Your task to perform on an android device: move a message to another label in the gmail app Image 0: 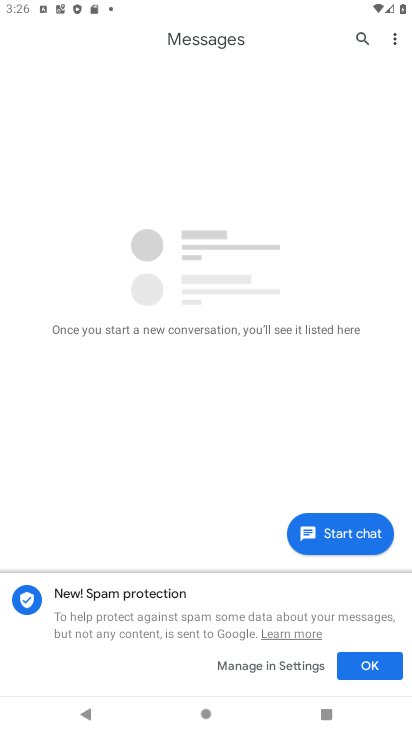
Step 0: press home button
Your task to perform on an android device: move a message to another label in the gmail app Image 1: 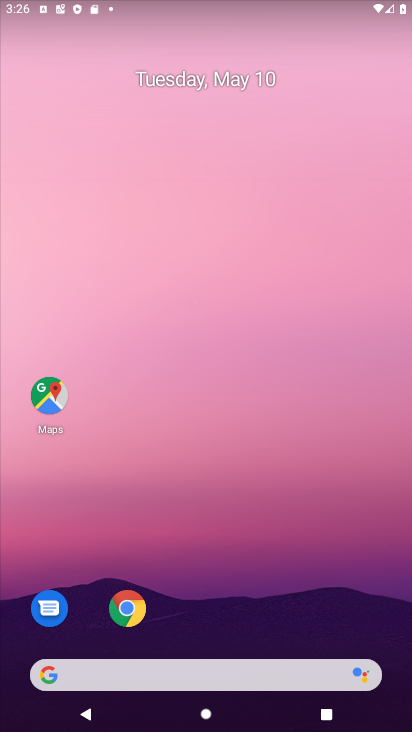
Step 1: drag from (394, 653) to (265, 112)
Your task to perform on an android device: move a message to another label in the gmail app Image 2: 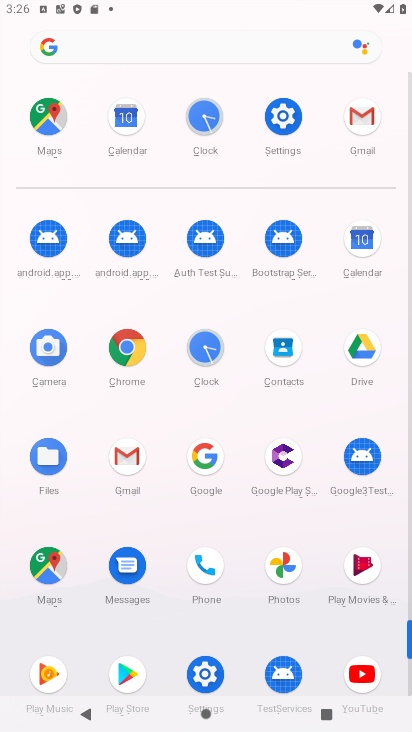
Step 2: click (125, 451)
Your task to perform on an android device: move a message to another label in the gmail app Image 3: 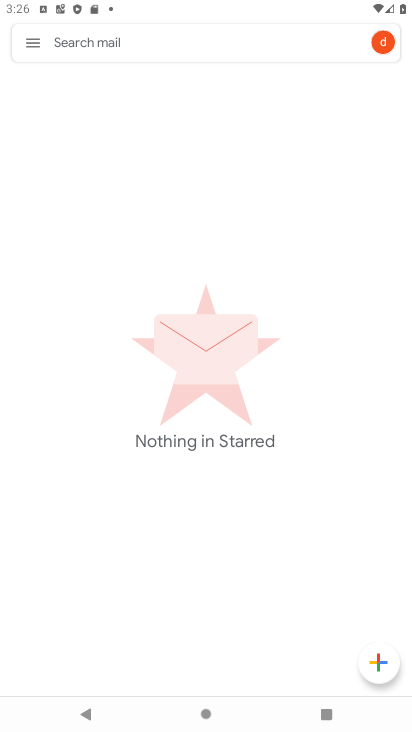
Step 3: click (27, 37)
Your task to perform on an android device: move a message to another label in the gmail app Image 4: 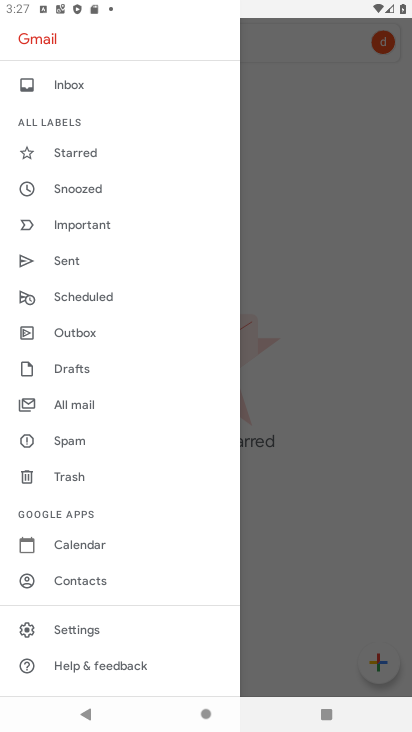
Step 4: click (68, 406)
Your task to perform on an android device: move a message to another label in the gmail app Image 5: 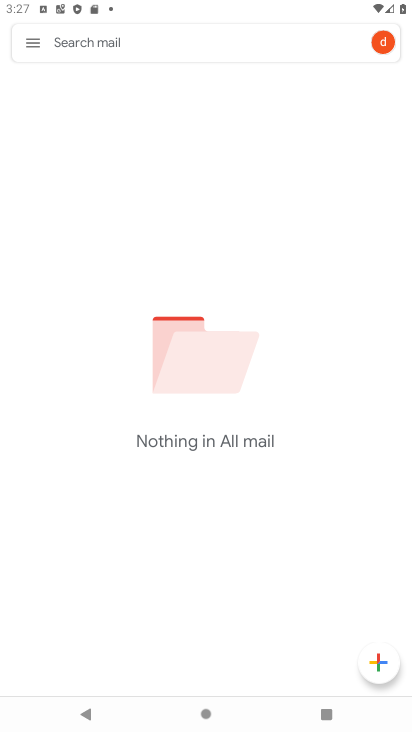
Step 5: task complete